Your task to perform on an android device: toggle priority inbox in the gmail app Image 0: 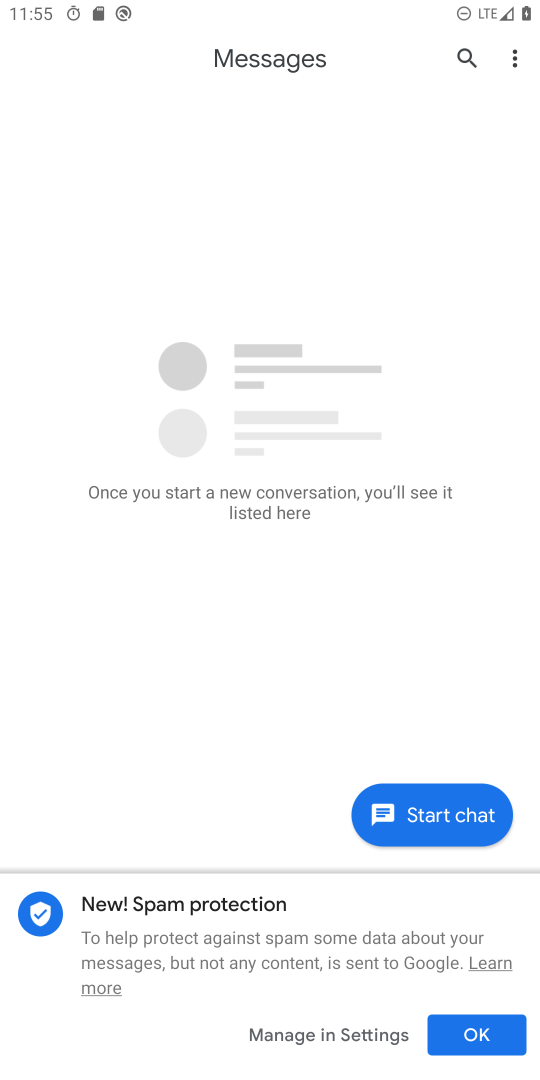
Step 0: press home button
Your task to perform on an android device: toggle priority inbox in the gmail app Image 1: 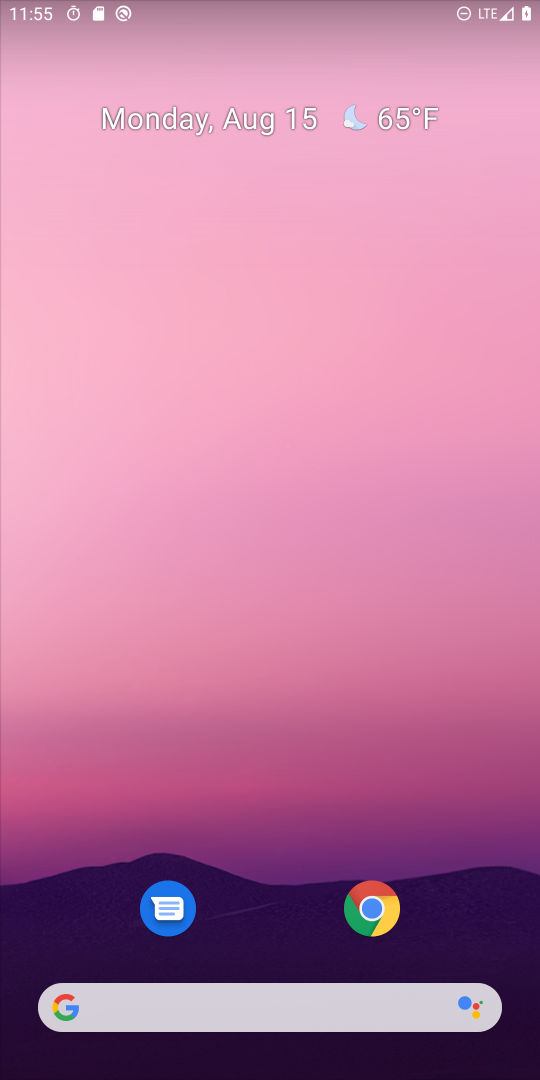
Step 1: drag from (252, 936) to (292, 111)
Your task to perform on an android device: toggle priority inbox in the gmail app Image 2: 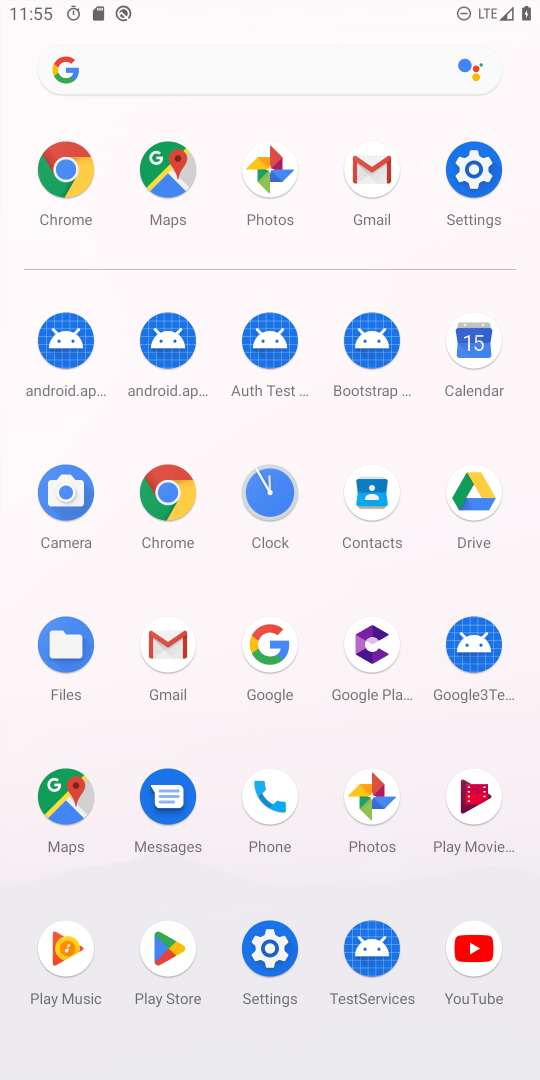
Step 2: click (381, 172)
Your task to perform on an android device: toggle priority inbox in the gmail app Image 3: 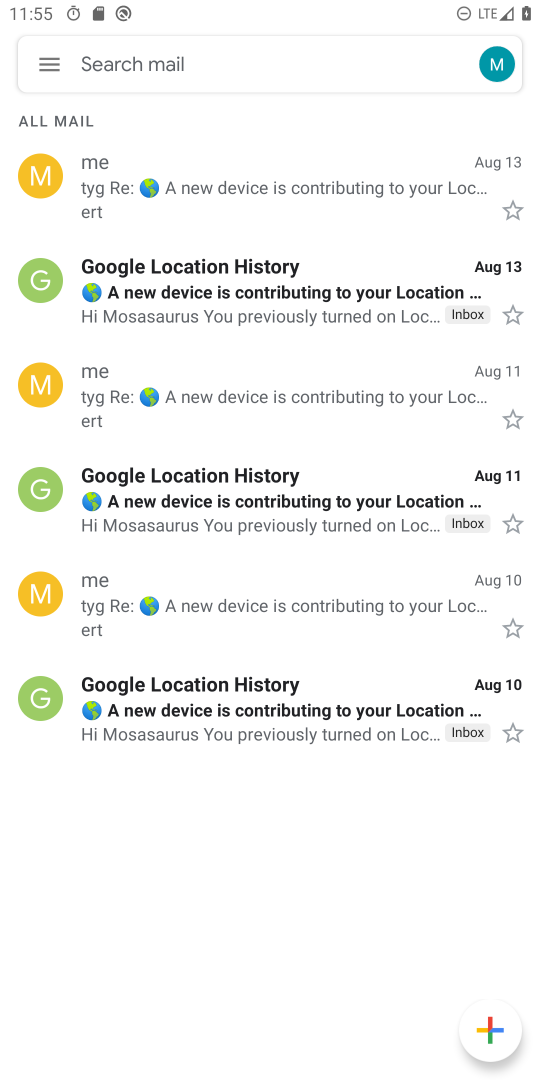
Step 3: click (60, 72)
Your task to perform on an android device: toggle priority inbox in the gmail app Image 4: 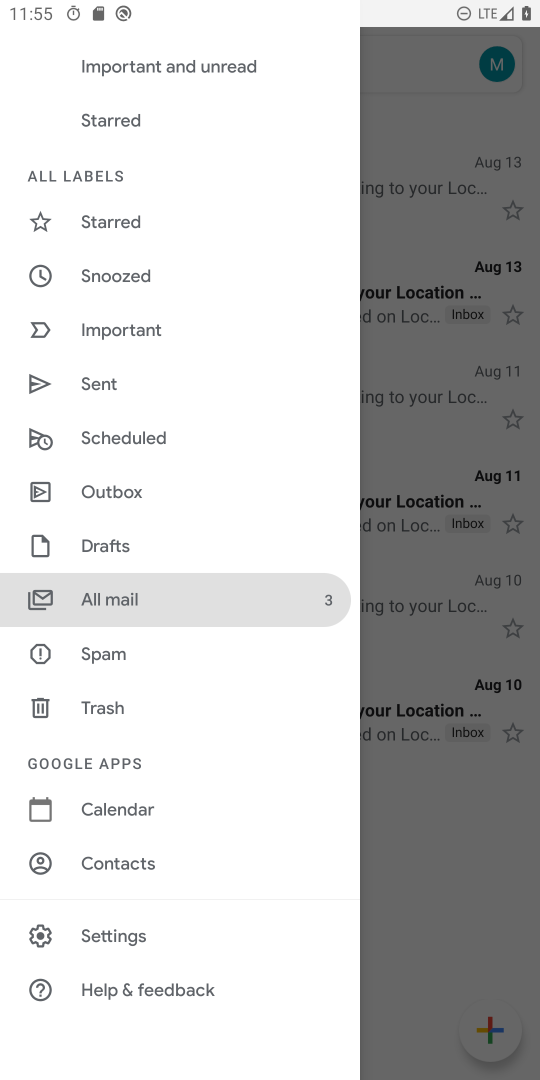
Step 4: click (104, 944)
Your task to perform on an android device: toggle priority inbox in the gmail app Image 5: 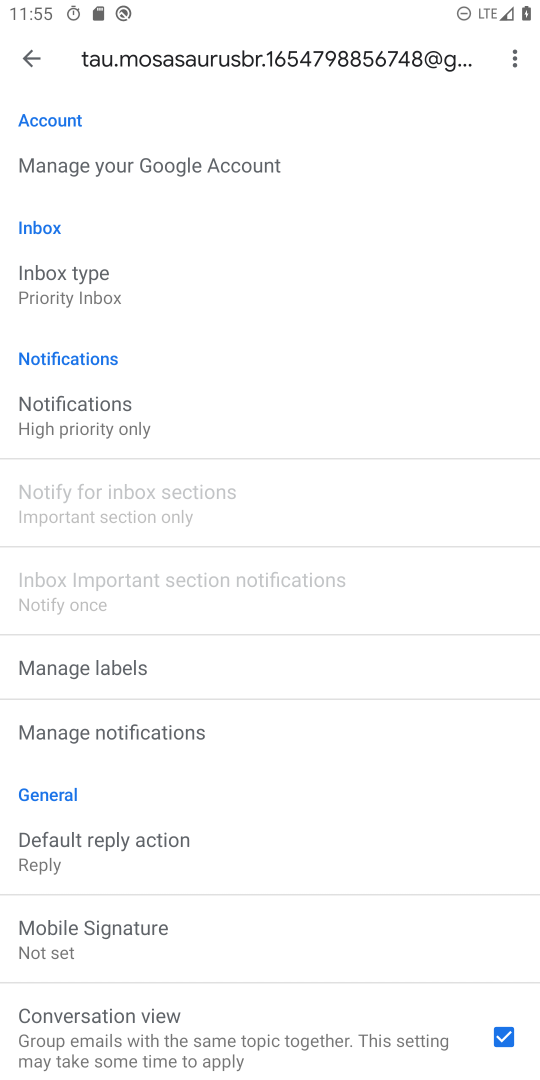
Step 5: click (142, 285)
Your task to perform on an android device: toggle priority inbox in the gmail app Image 6: 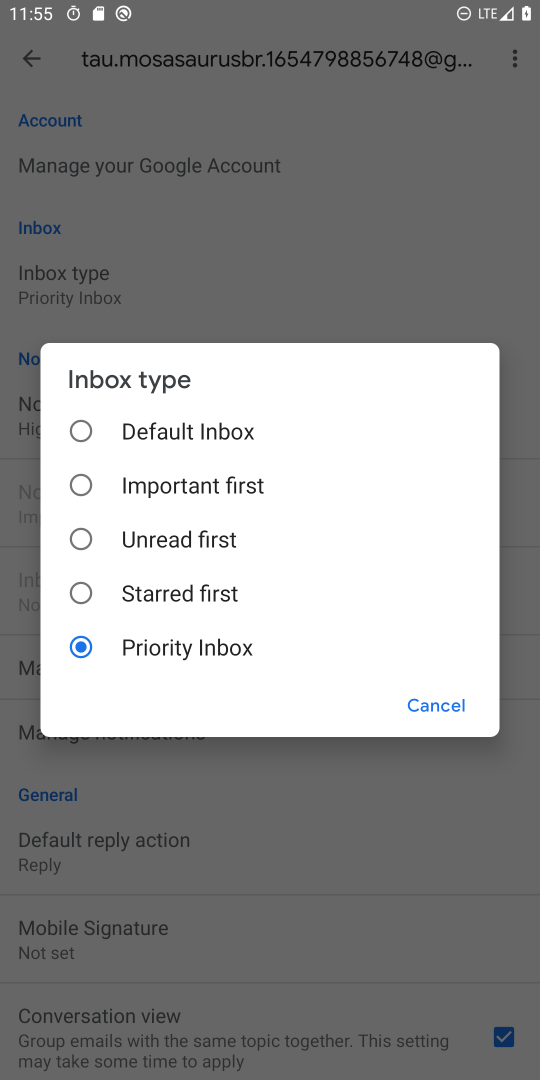
Step 6: click (233, 558)
Your task to perform on an android device: toggle priority inbox in the gmail app Image 7: 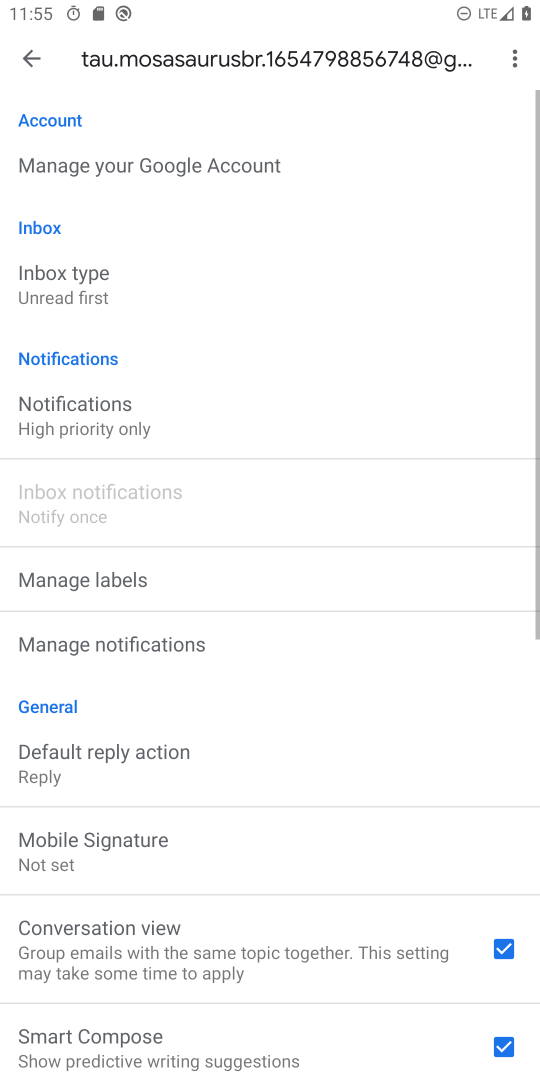
Step 7: task complete